Your task to perform on an android device: turn off javascript in the chrome app Image 0: 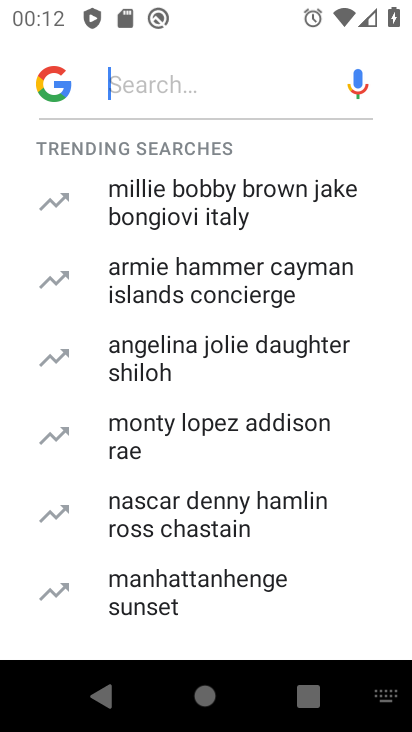
Step 0: press home button
Your task to perform on an android device: turn off javascript in the chrome app Image 1: 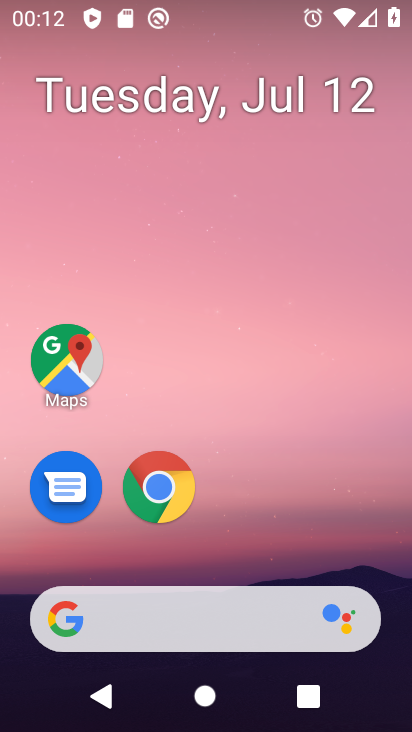
Step 1: drag from (354, 532) to (366, 5)
Your task to perform on an android device: turn off javascript in the chrome app Image 2: 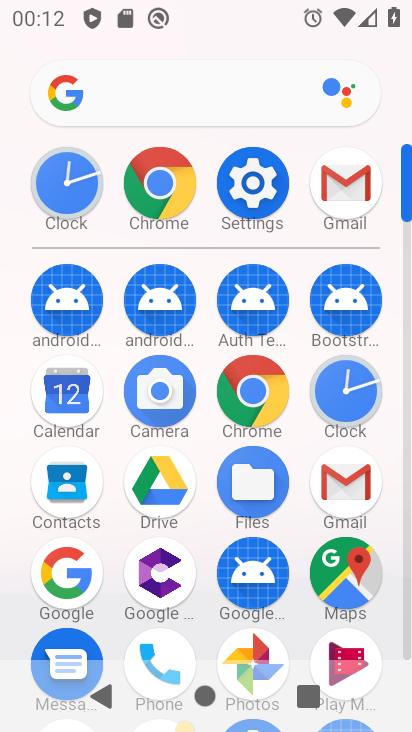
Step 2: click (264, 397)
Your task to perform on an android device: turn off javascript in the chrome app Image 3: 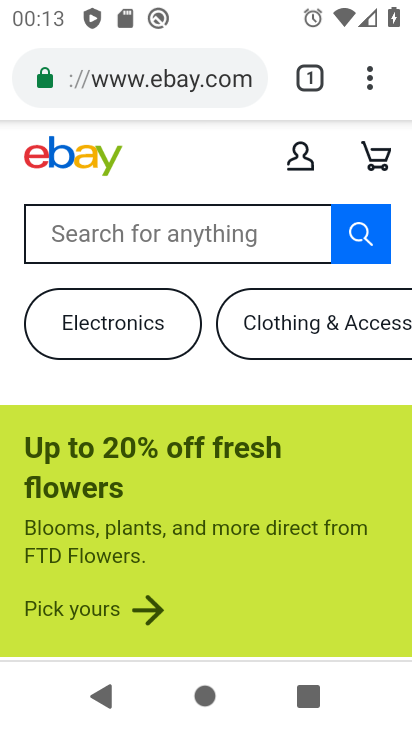
Step 3: click (365, 89)
Your task to perform on an android device: turn off javascript in the chrome app Image 4: 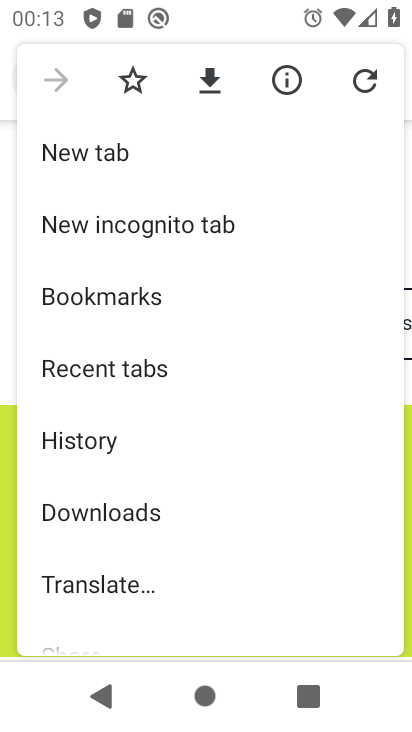
Step 4: drag from (330, 379) to (335, 231)
Your task to perform on an android device: turn off javascript in the chrome app Image 5: 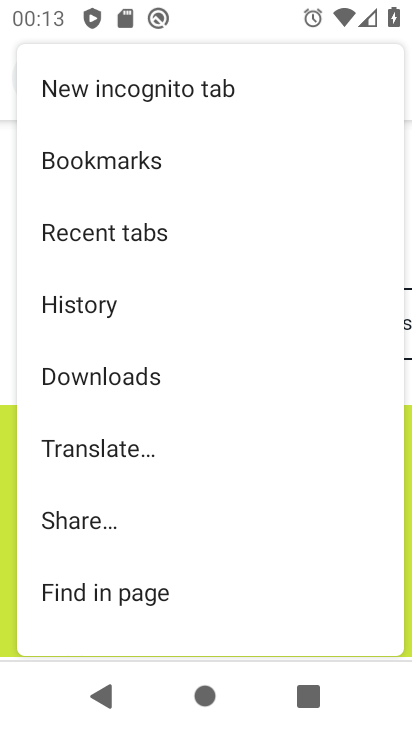
Step 5: drag from (316, 417) to (300, 288)
Your task to perform on an android device: turn off javascript in the chrome app Image 6: 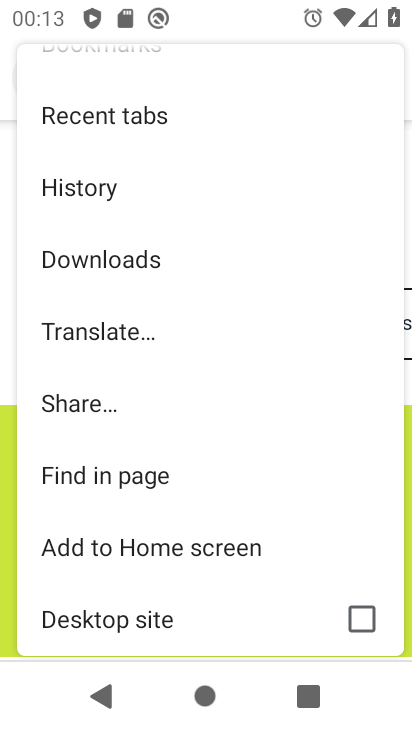
Step 6: drag from (305, 390) to (305, 332)
Your task to perform on an android device: turn off javascript in the chrome app Image 7: 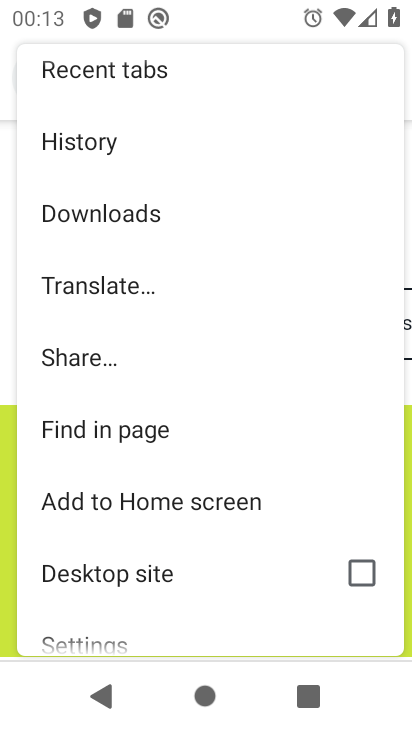
Step 7: drag from (229, 553) to (255, 359)
Your task to perform on an android device: turn off javascript in the chrome app Image 8: 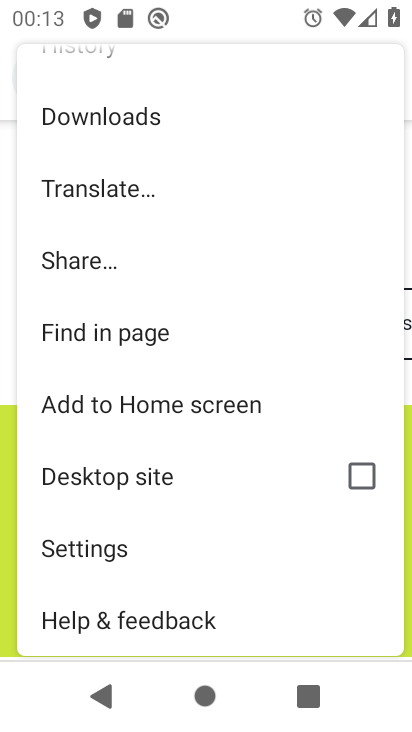
Step 8: click (114, 555)
Your task to perform on an android device: turn off javascript in the chrome app Image 9: 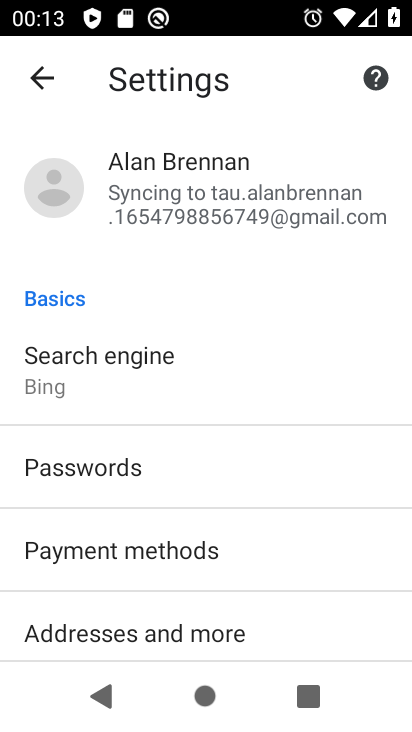
Step 9: drag from (333, 566) to (325, 309)
Your task to perform on an android device: turn off javascript in the chrome app Image 10: 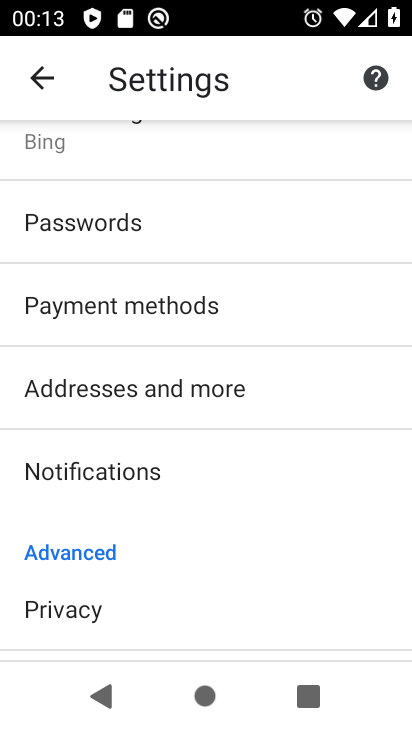
Step 10: drag from (320, 482) to (346, 311)
Your task to perform on an android device: turn off javascript in the chrome app Image 11: 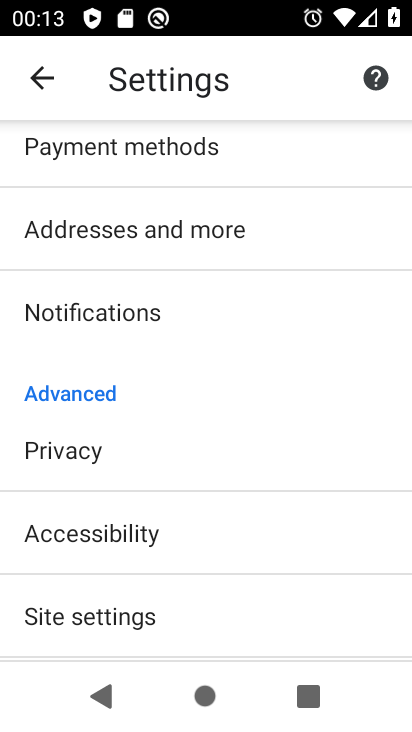
Step 11: drag from (331, 487) to (333, 361)
Your task to perform on an android device: turn off javascript in the chrome app Image 12: 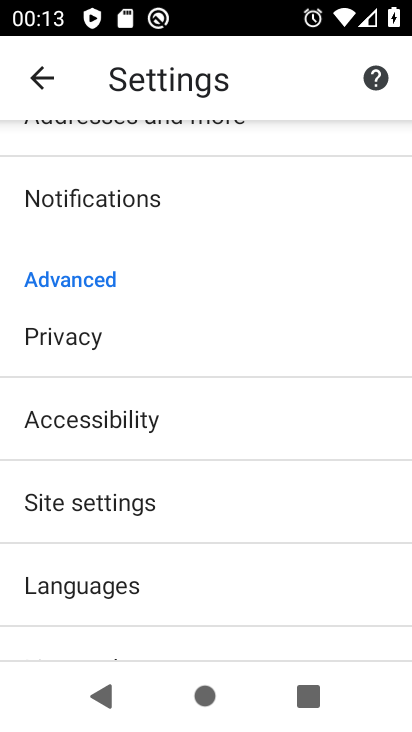
Step 12: click (297, 494)
Your task to perform on an android device: turn off javascript in the chrome app Image 13: 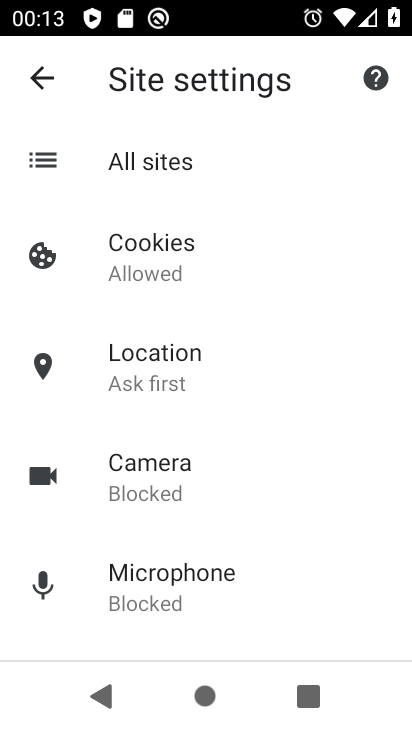
Step 13: drag from (306, 514) to (311, 412)
Your task to perform on an android device: turn off javascript in the chrome app Image 14: 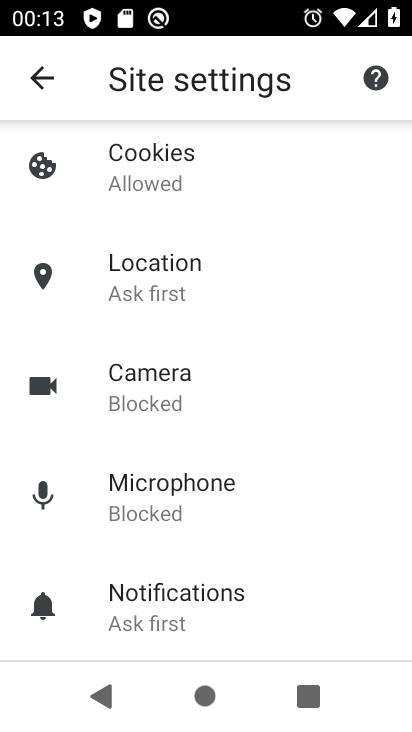
Step 14: drag from (310, 524) to (312, 409)
Your task to perform on an android device: turn off javascript in the chrome app Image 15: 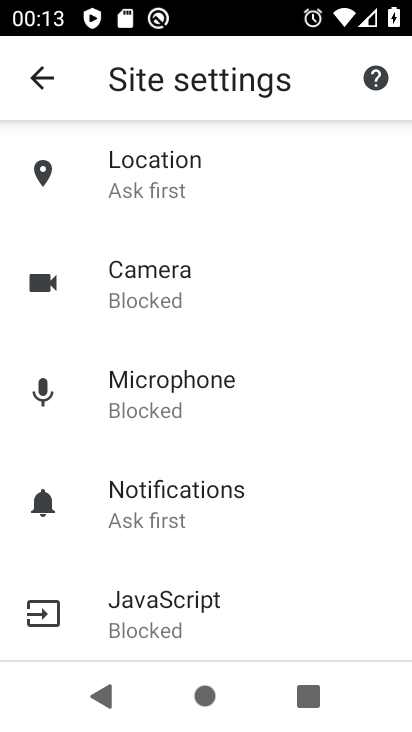
Step 15: drag from (322, 496) to (329, 381)
Your task to perform on an android device: turn off javascript in the chrome app Image 16: 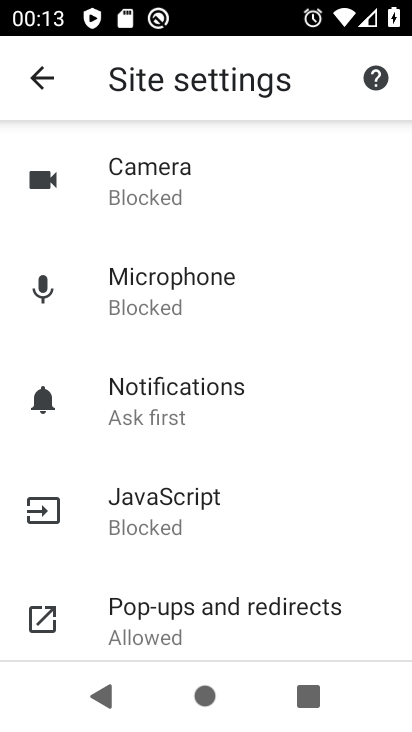
Step 16: drag from (319, 491) to (336, 226)
Your task to perform on an android device: turn off javascript in the chrome app Image 17: 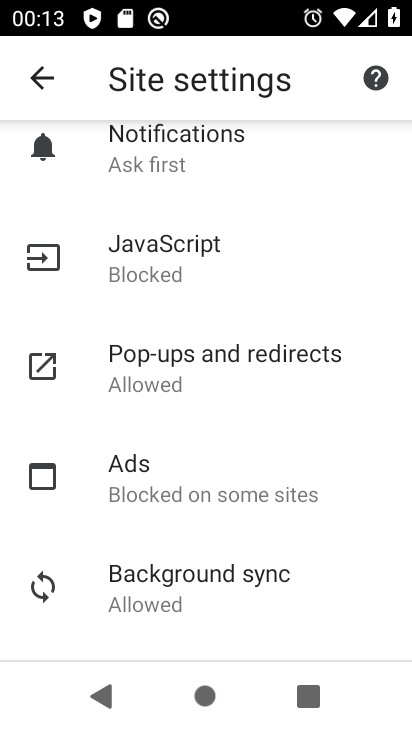
Step 17: click (203, 270)
Your task to perform on an android device: turn off javascript in the chrome app Image 18: 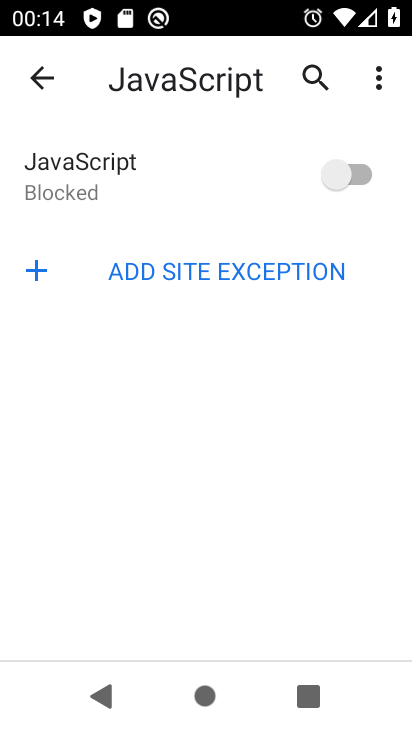
Step 18: task complete